Your task to perform on an android device: Search for Mexican restaurants on Maps Image 0: 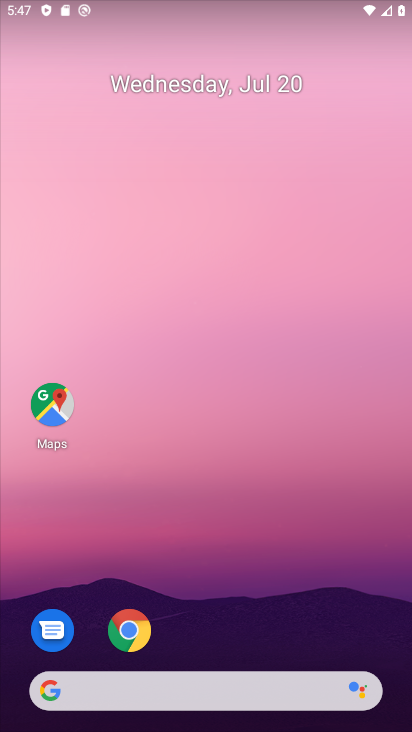
Step 0: drag from (285, 706) to (258, 119)
Your task to perform on an android device: Search for Mexican restaurants on Maps Image 1: 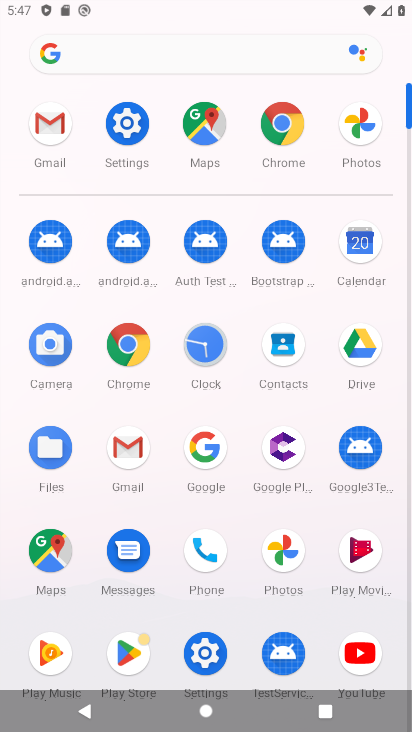
Step 1: click (43, 556)
Your task to perform on an android device: Search for Mexican restaurants on Maps Image 2: 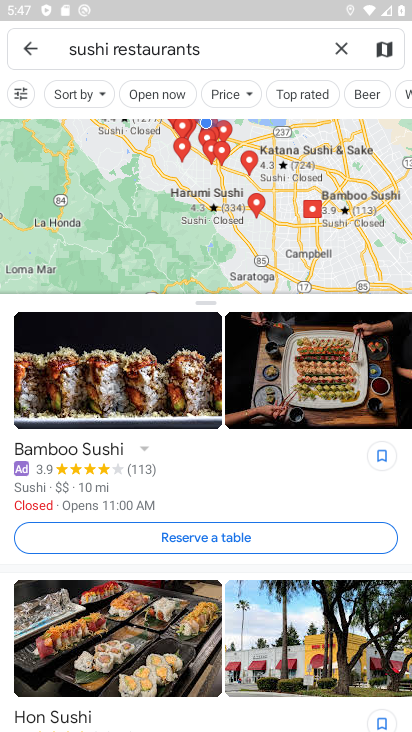
Step 2: click (344, 40)
Your task to perform on an android device: Search for Mexican restaurants on Maps Image 3: 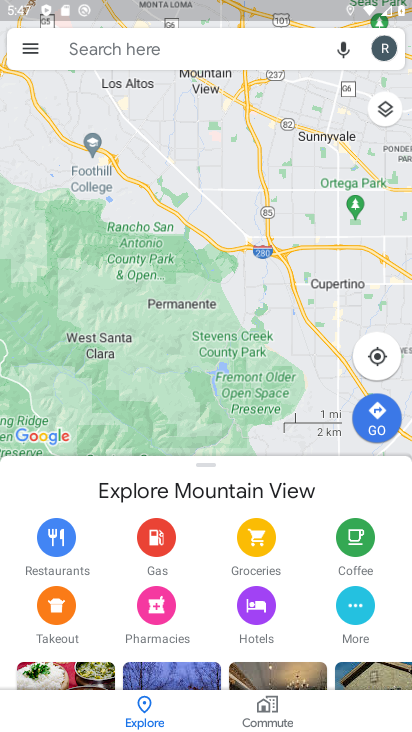
Step 3: click (244, 58)
Your task to perform on an android device: Search for Mexican restaurants on Maps Image 4: 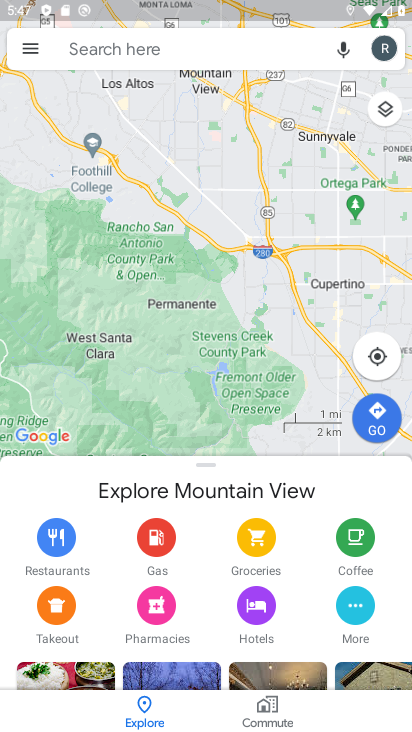
Step 4: click (244, 58)
Your task to perform on an android device: Search for Mexican restaurants on Maps Image 5: 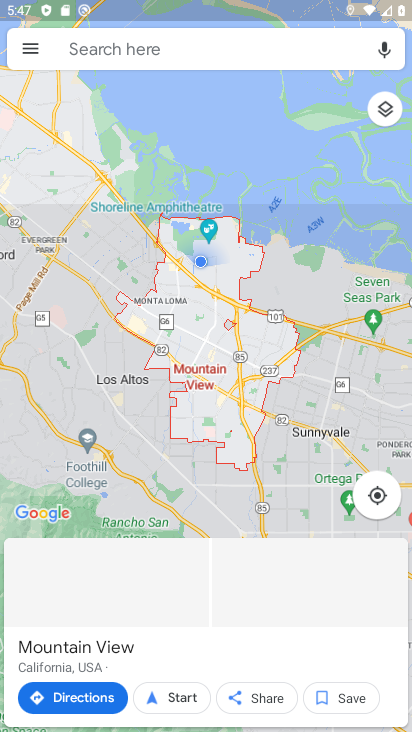
Step 5: click (191, 35)
Your task to perform on an android device: Search for Mexican restaurants on Maps Image 6: 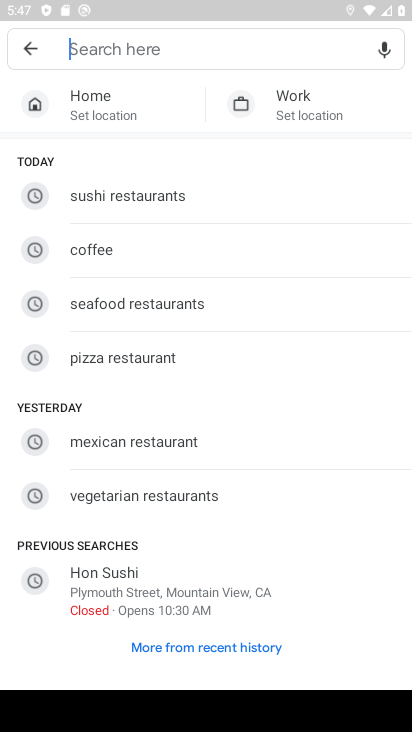
Step 6: click (148, 437)
Your task to perform on an android device: Search for Mexican restaurants on Maps Image 7: 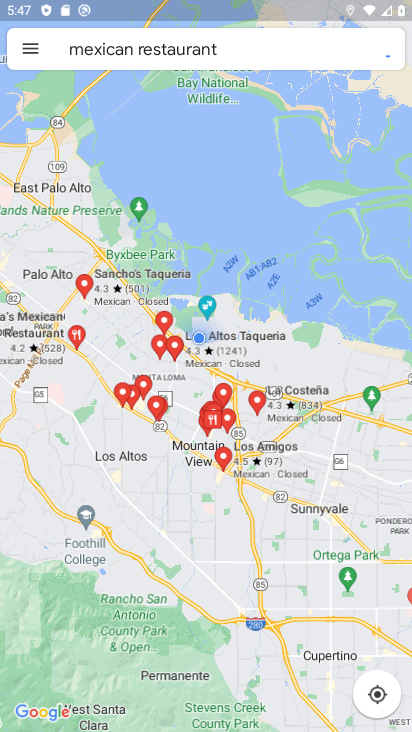
Step 7: task complete